Your task to perform on an android device: toggle priority inbox in the gmail app Image 0: 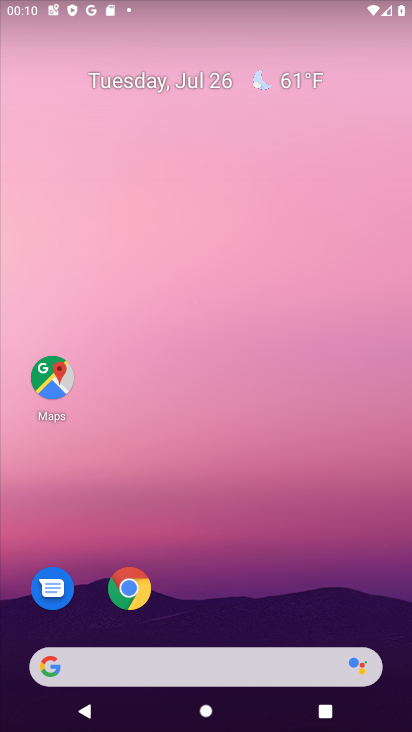
Step 0: press home button
Your task to perform on an android device: toggle priority inbox in the gmail app Image 1: 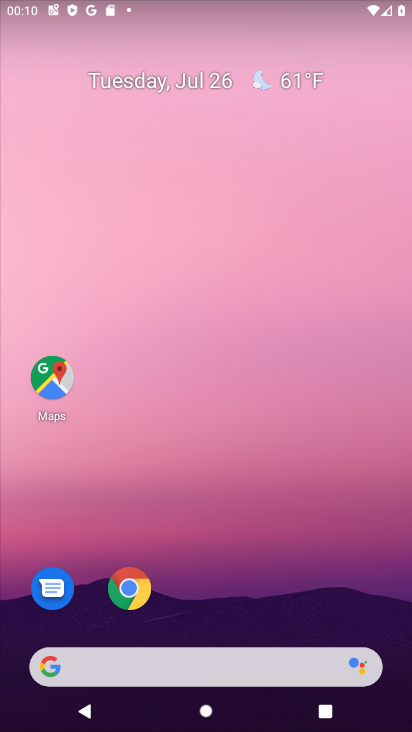
Step 1: drag from (225, 624) to (210, 12)
Your task to perform on an android device: toggle priority inbox in the gmail app Image 2: 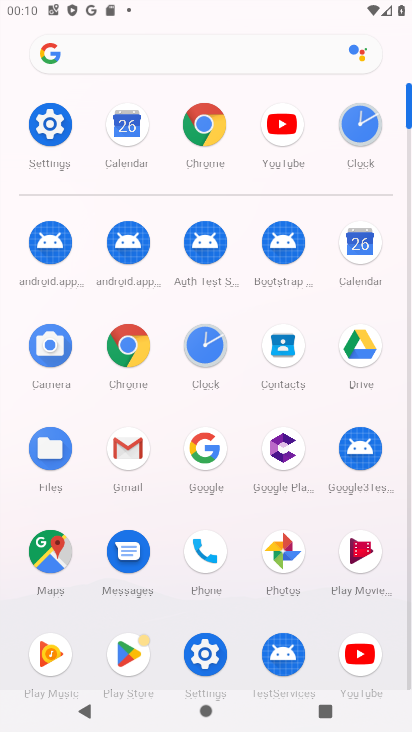
Step 2: click (123, 439)
Your task to perform on an android device: toggle priority inbox in the gmail app Image 3: 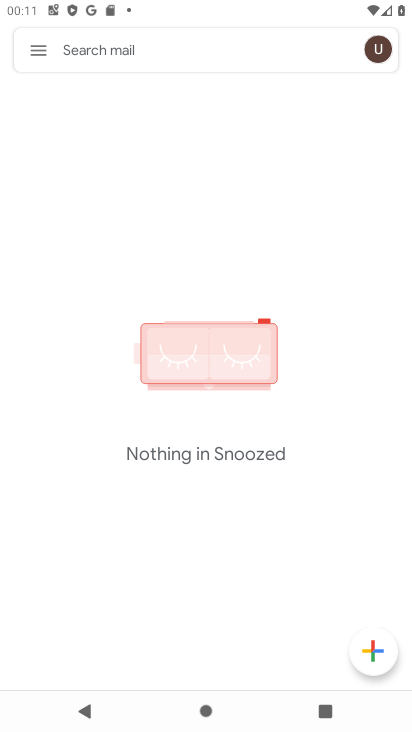
Step 3: click (33, 54)
Your task to perform on an android device: toggle priority inbox in the gmail app Image 4: 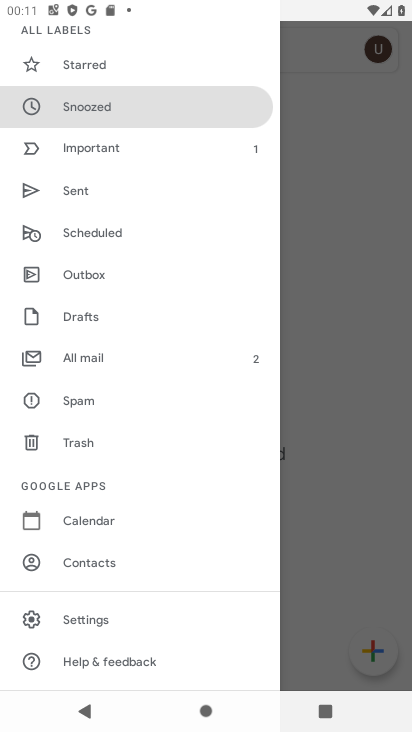
Step 4: click (117, 625)
Your task to perform on an android device: toggle priority inbox in the gmail app Image 5: 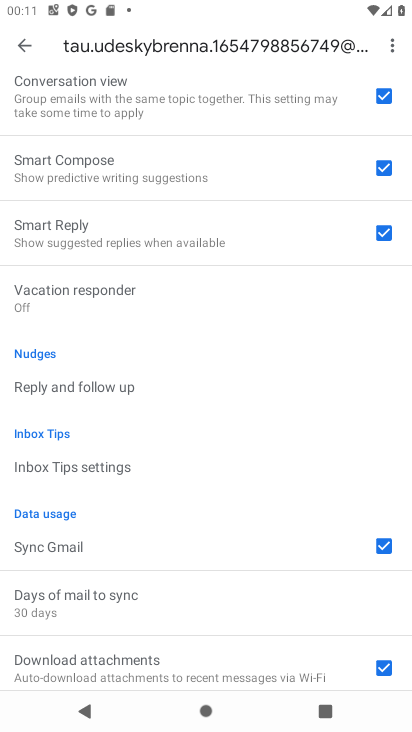
Step 5: drag from (108, 153) to (179, 680)
Your task to perform on an android device: toggle priority inbox in the gmail app Image 6: 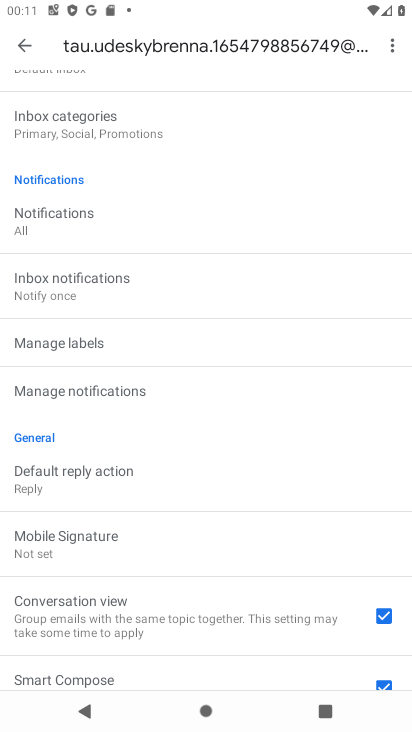
Step 6: drag from (111, 145) to (215, 603)
Your task to perform on an android device: toggle priority inbox in the gmail app Image 7: 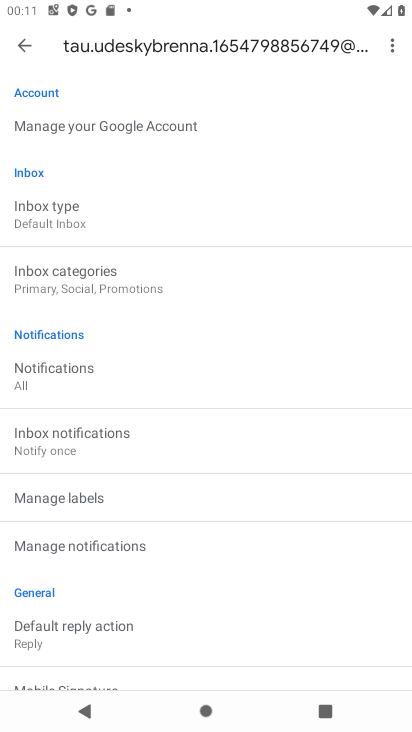
Step 7: click (97, 210)
Your task to perform on an android device: toggle priority inbox in the gmail app Image 8: 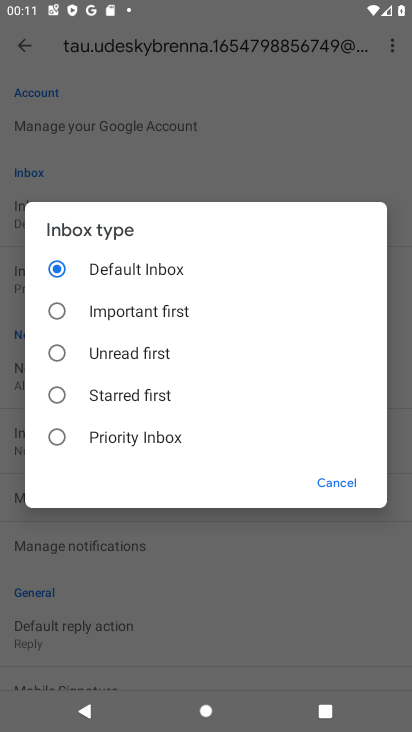
Step 8: click (56, 433)
Your task to perform on an android device: toggle priority inbox in the gmail app Image 9: 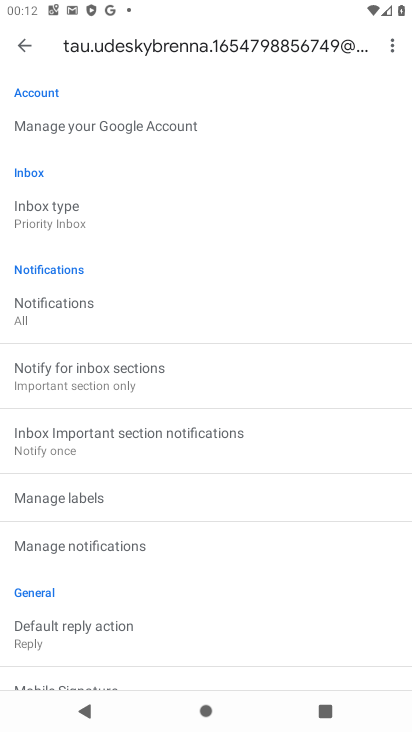
Step 9: task complete